Your task to perform on an android device: Open a new incognito tab in the chrome app Image 0: 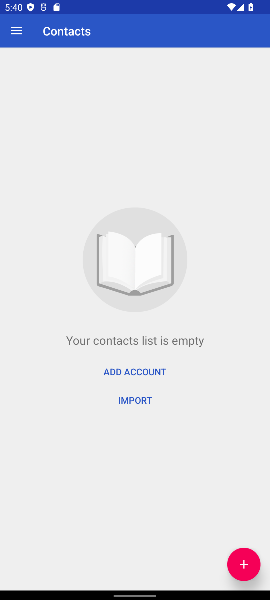
Step 0: press home button
Your task to perform on an android device: Open a new incognito tab in the chrome app Image 1: 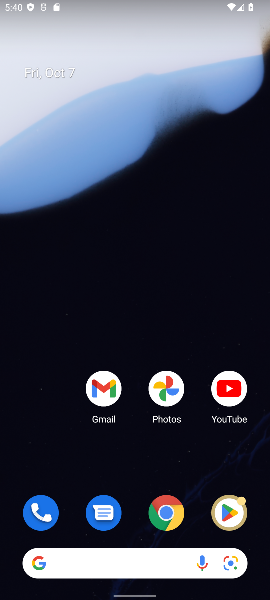
Step 1: click (168, 515)
Your task to perform on an android device: Open a new incognito tab in the chrome app Image 2: 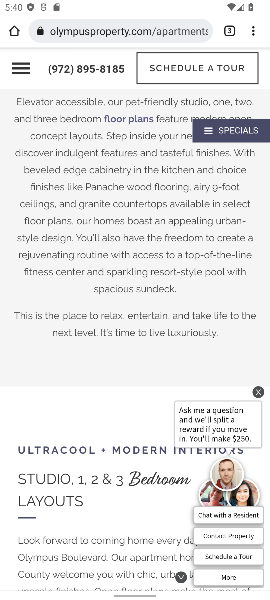
Step 2: click (253, 33)
Your task to perform on an android device: Open a new incognito tab in the chrome app Image 3: 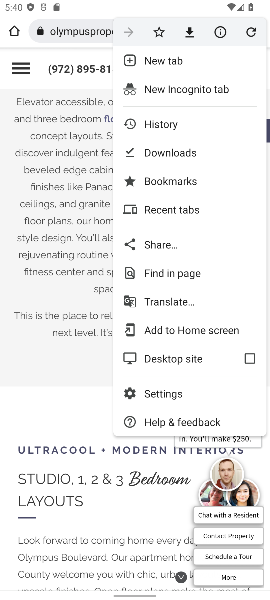
Step 3: click (173, 92)
Your task to perform on an android device: Open a new incognito tab in the chrome app Image 4: 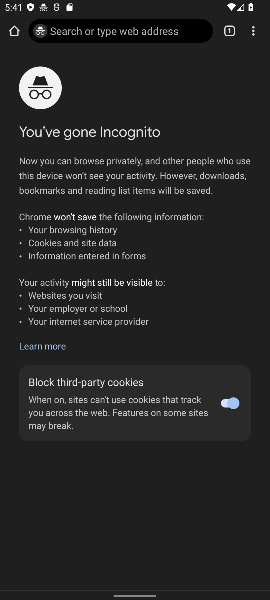
Step 4: task complete